Your task to perform on an android device: See recent photos Image 0: 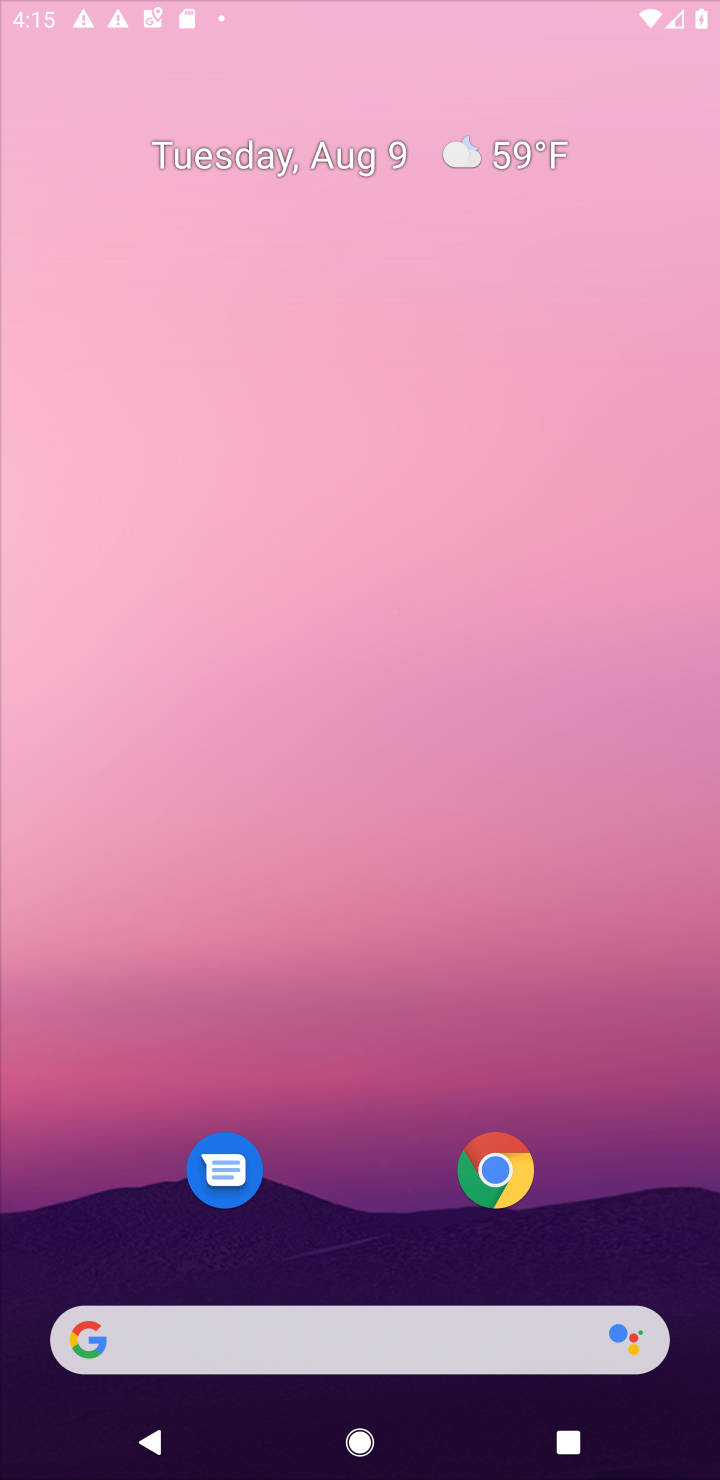
Step 0: press home button
Your task to perform on an android device: See recent photos Image 1: 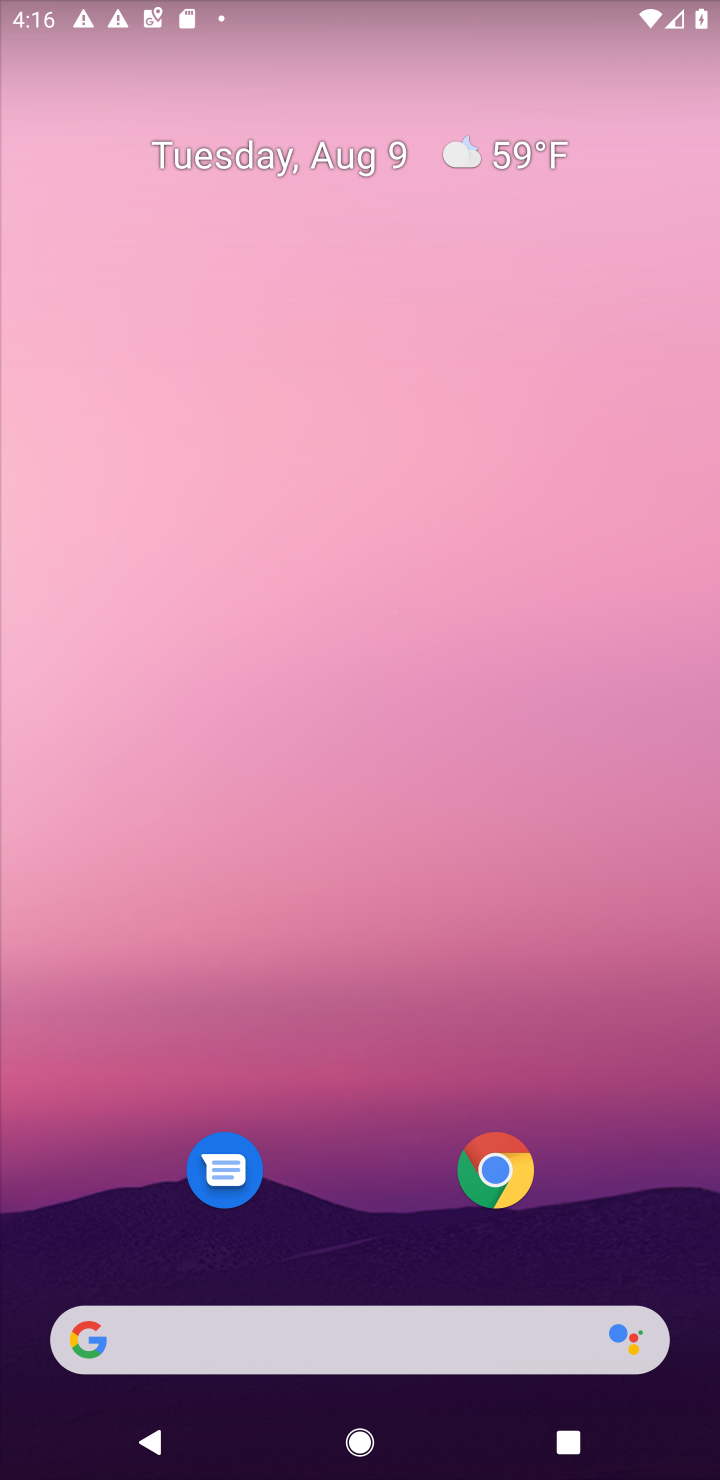
Step 1: drag from (375, 1208) to (308, 182)
Your task to perform on an android device: See recent photos Image 2: 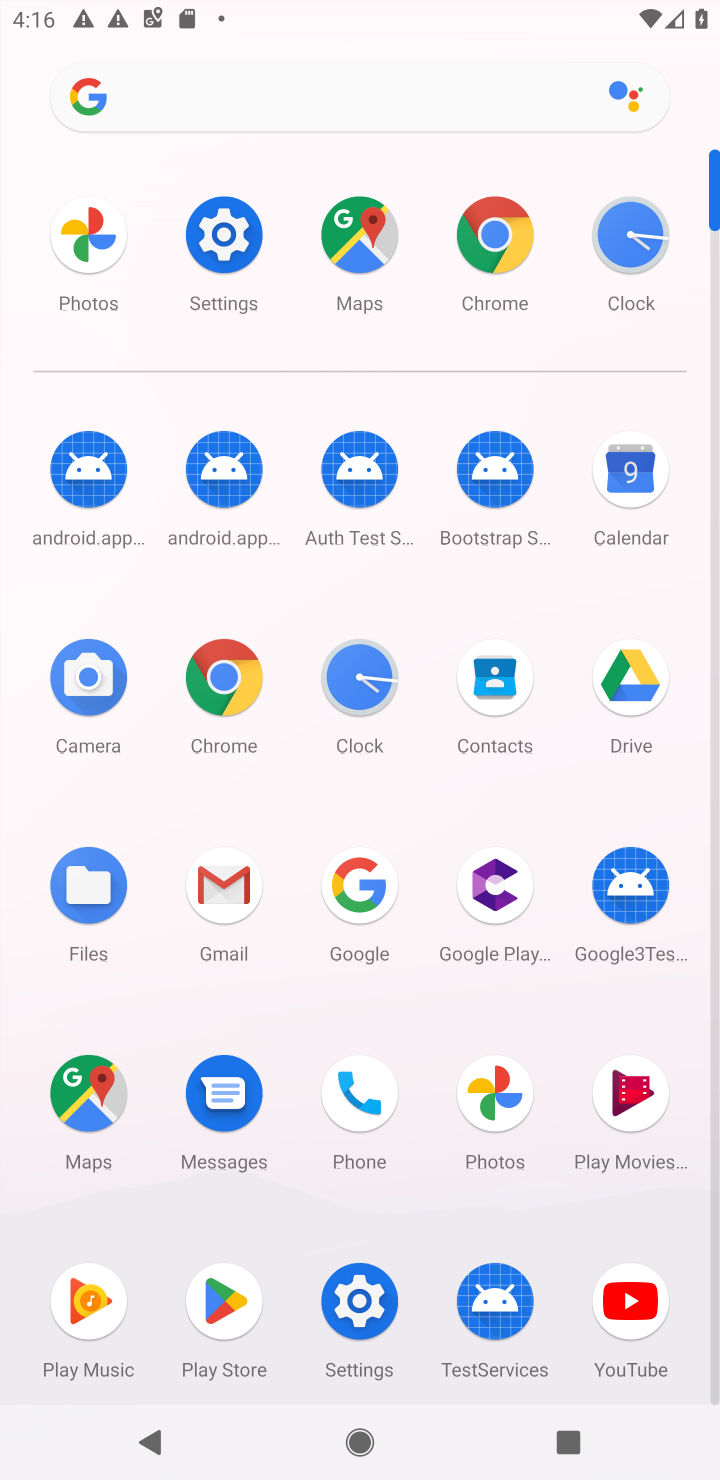
Step 2: click (485, 1110)
Your task to perform on an android device: See recent photos Image 3: 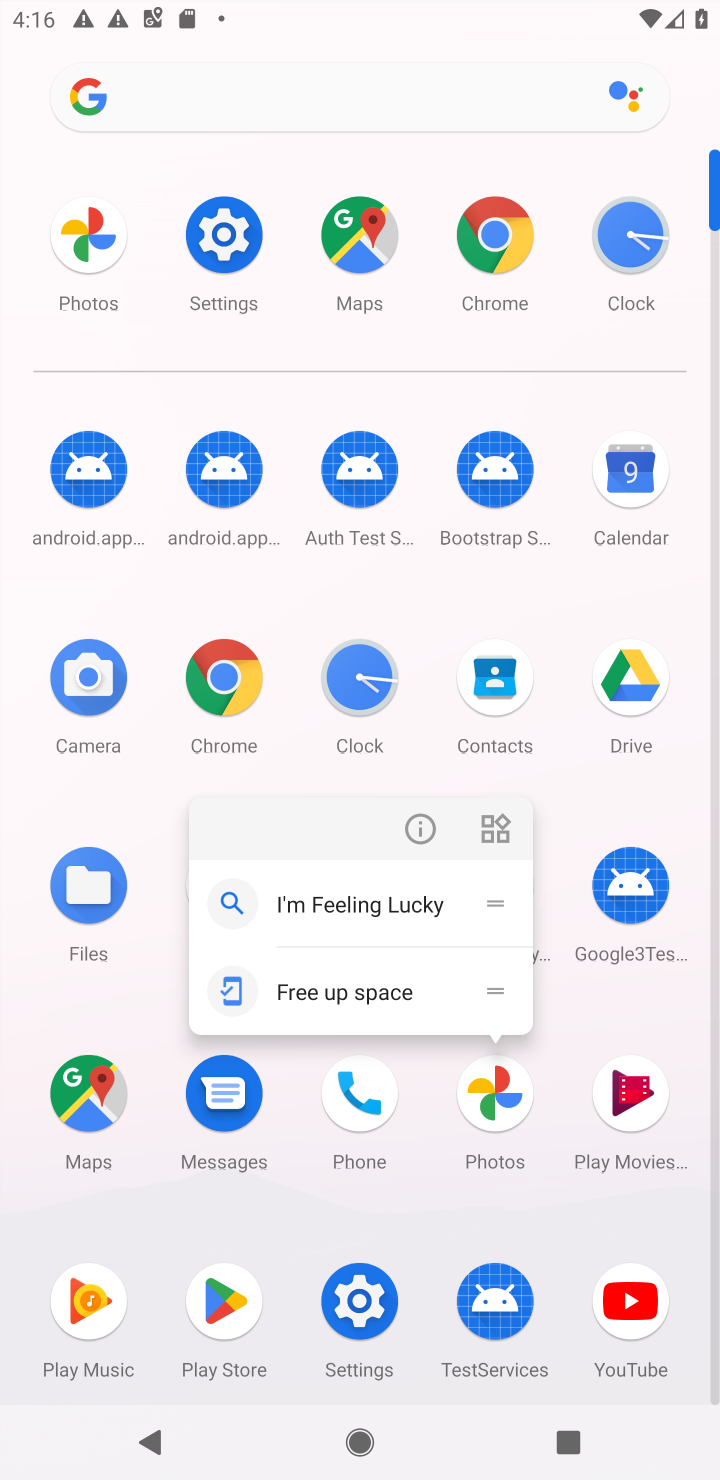
Step 3: click (509, 1100)
Your task to perform on an android device: See recent photos Image 4: 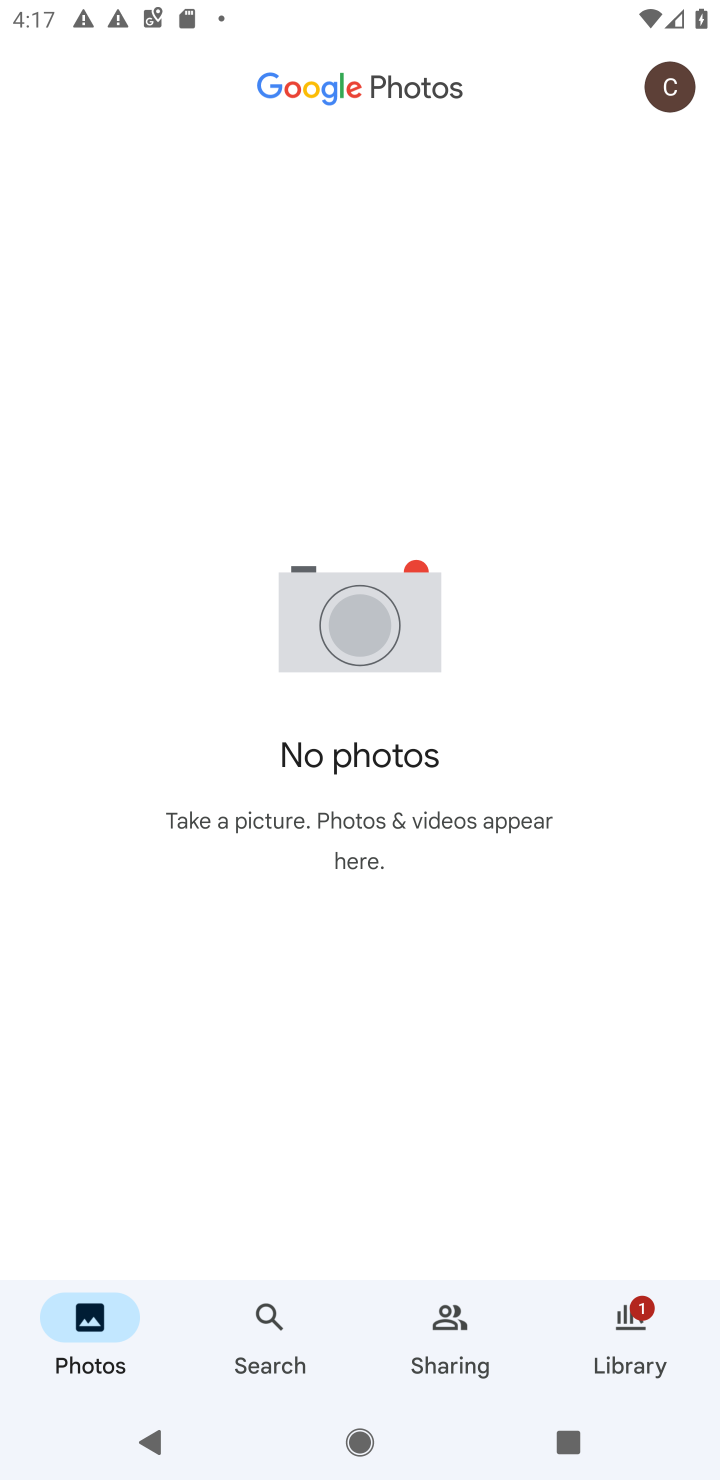
Step 4: task complete